Your task to perform on an android device: Go to internet settings Image 0: 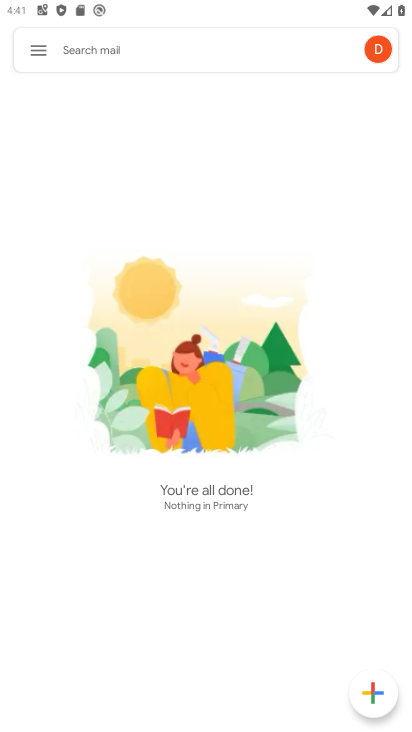
Step 0: press home button
Your task to perform on an android device: Go to internet settings Image 1: 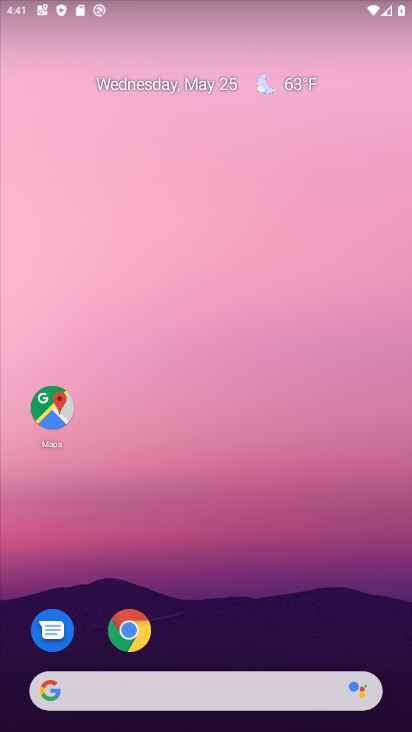
Step 1: drag from (193, 633) to (264, 32)
Your task to perform on an android device: Go to internet settings Image 2: 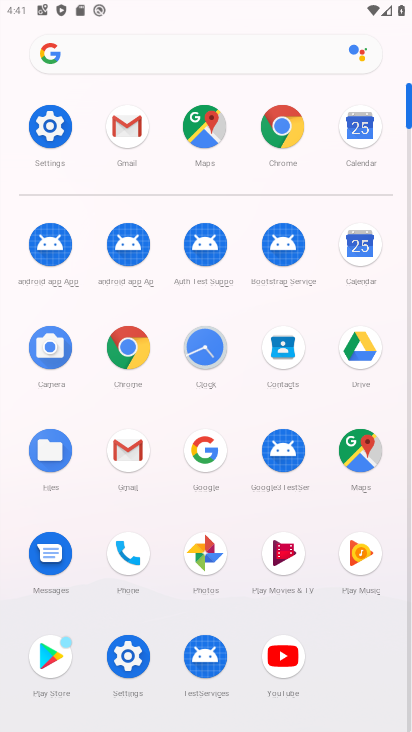
Step 2: click (35, 120)
Your task to perform on an android device: Go to internet settings Image 3: 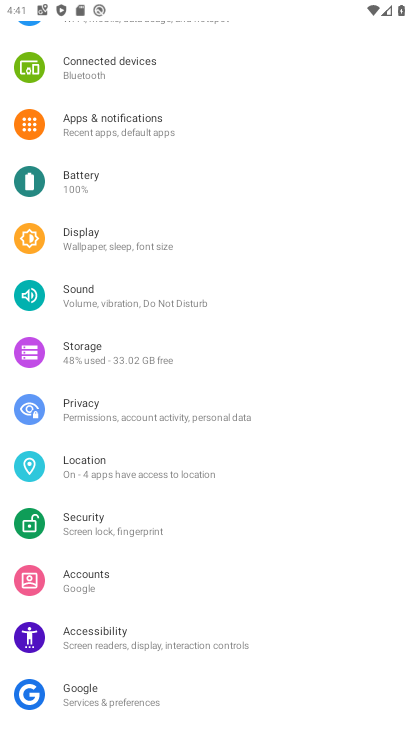
Step 3: drag from (180, 170) to (151, 605)
Your task to perform on an android device: Go to internet settings Image 4: 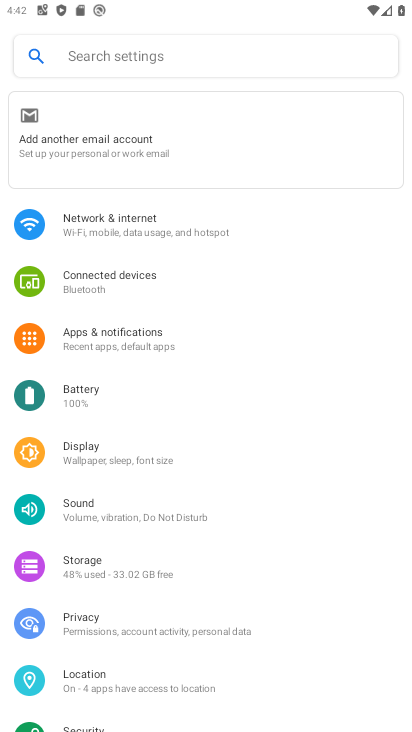
Step 4: click (125, 225)
Your task to perform on an android device: Go to internet settings Image 5: 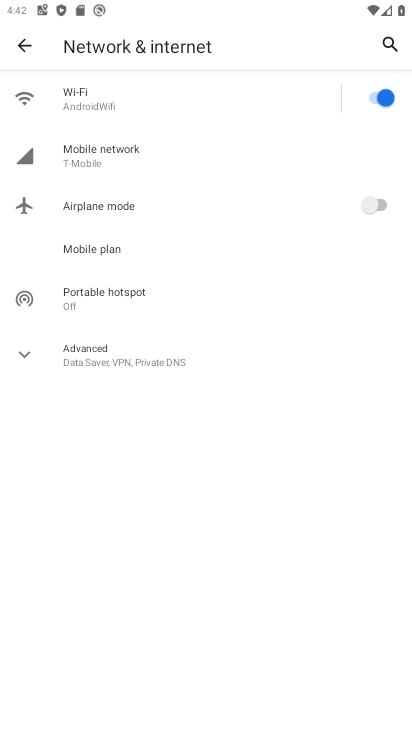
Step 5: task complete